Your task to perform on an android device: What's on my calendar today? Image 0: 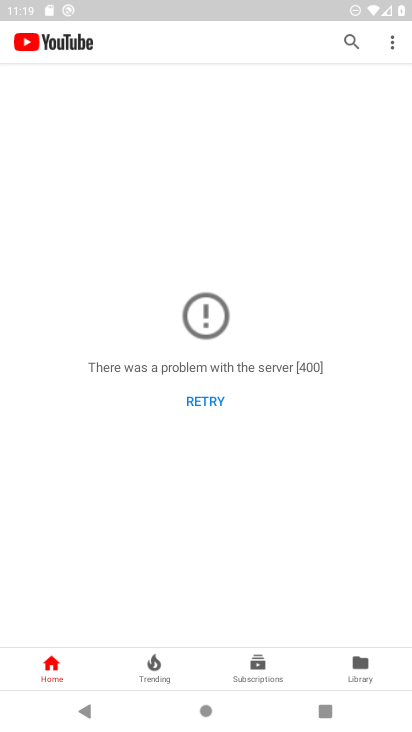
Step 0: press home button
Your task to perform on an android device: What's on my calendar today? Image 1: 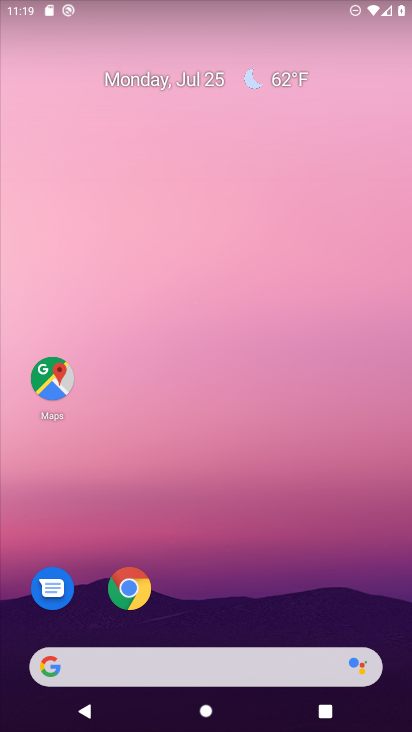
Step 1: drag from (8, 635) to (271, 59)
Your task to perform on an android device: What's on my calendar today? Image 2: 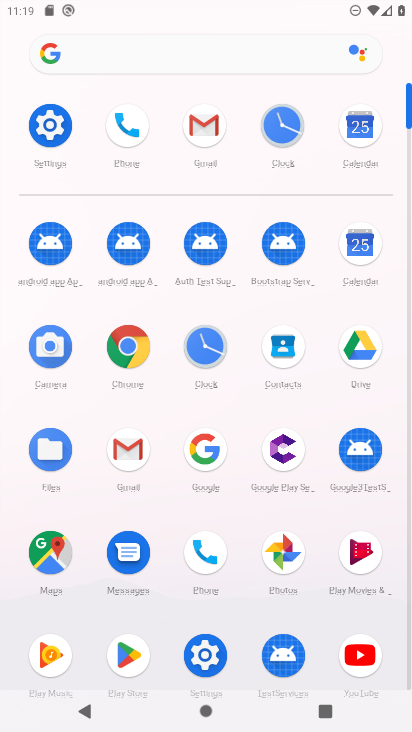
Step 2: click (344, 256)
Your task to perform on an android device: What's on my calendar today? Image 3: 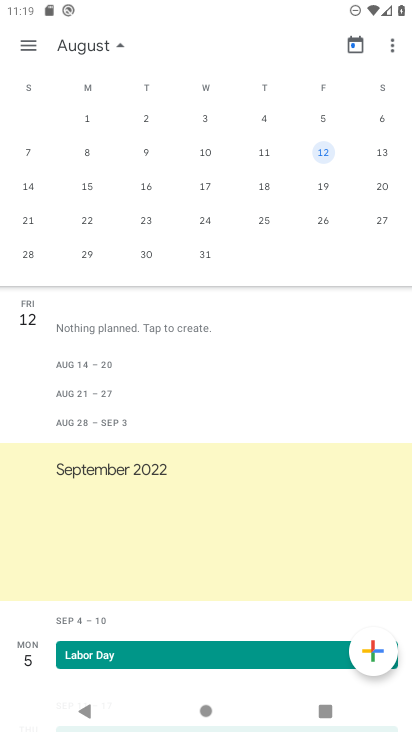
Step 3: drag from (161, 209) to (383, 227)
Your task to perform on an android device: What's on my calendar today? Image 4: 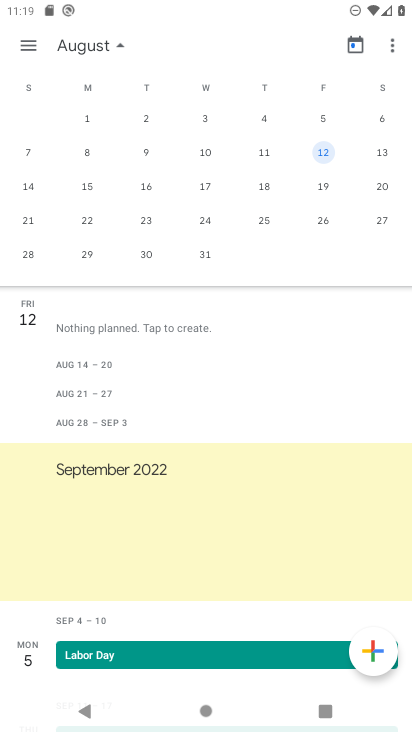
Step 4: drag from (35, 196) to (384, 179)
Your task to perform on an android device: What's on my calendar today? Image 5: 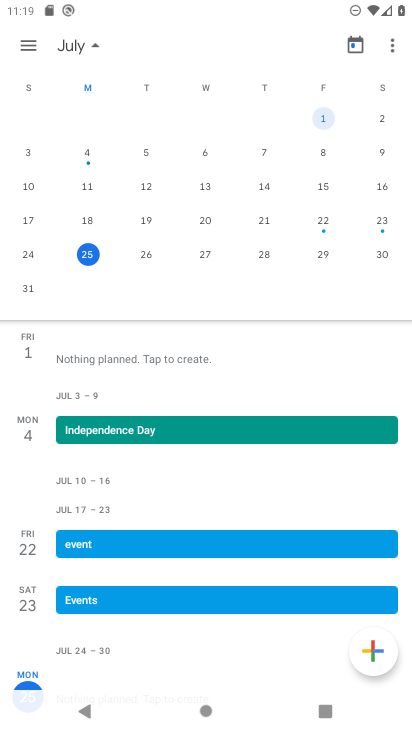
Step 5: click (84, 251)
Your task to perform on an android device: What's on my calendar today? Image 6: 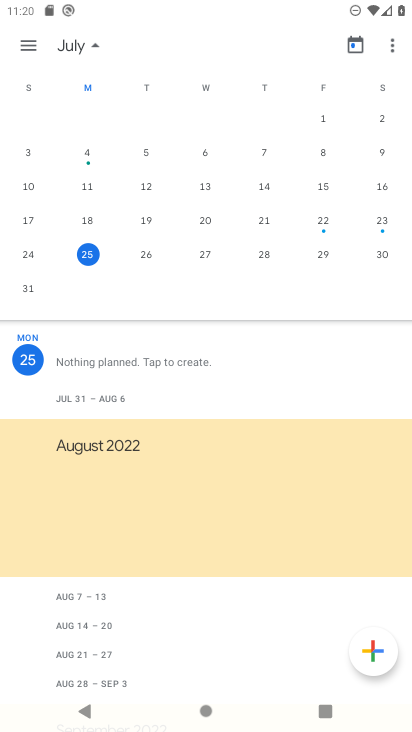
Step 6: task complete